Your task to perform on an android device: Open privacy settings Image 0: 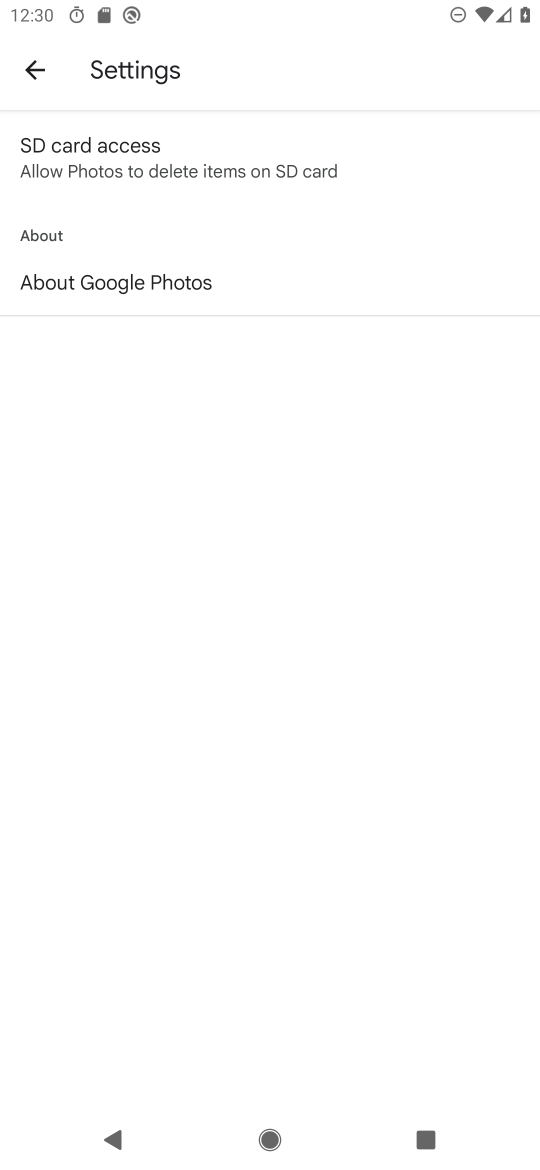
Step 0: press home button
Your task to perform on an android device: Open privacy settings Image 1: 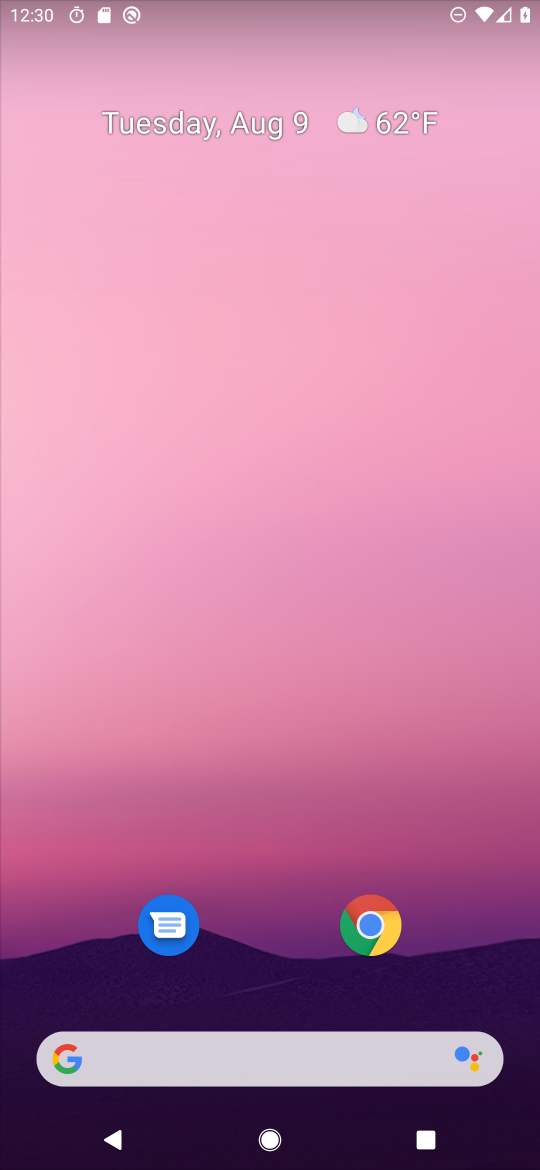
Step 1: drag from (263, 834) to (284, 319)
Your task to perform on an android device: Open privacy settings Image 2: 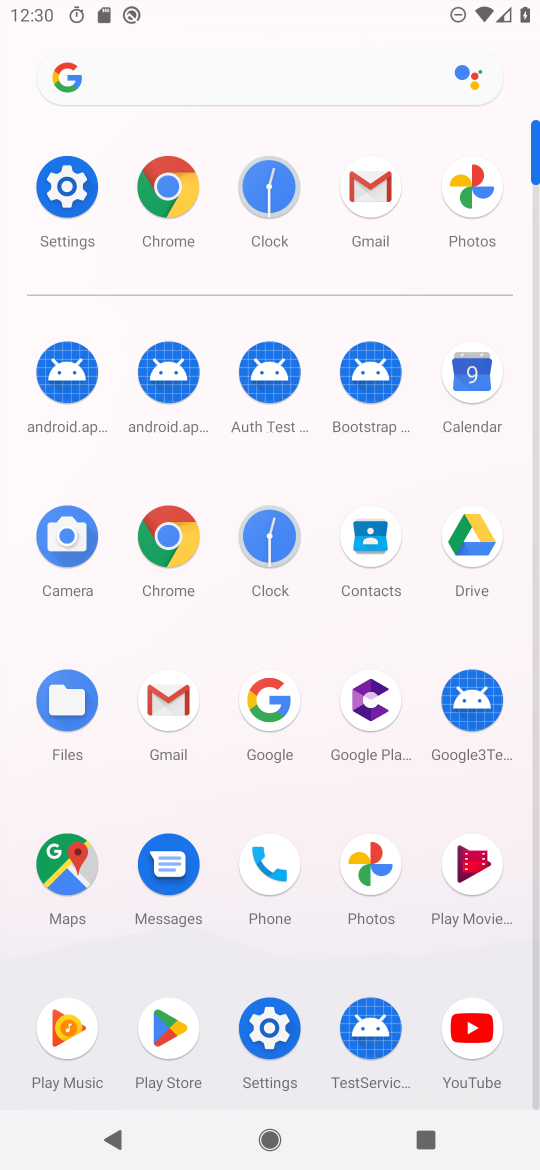
Step 2: click (284, 1037)
Your task to perform on an android device: Open privacy settings Image 3: 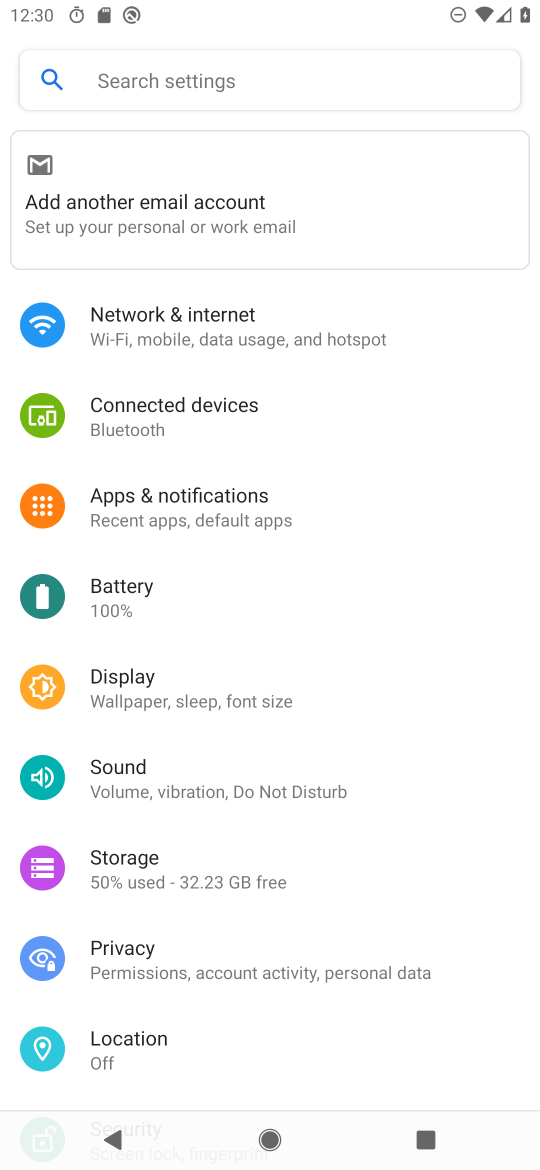
Step 3: click (218, 958)
Your task to perform on an android device: Open privacy settings Image 4: 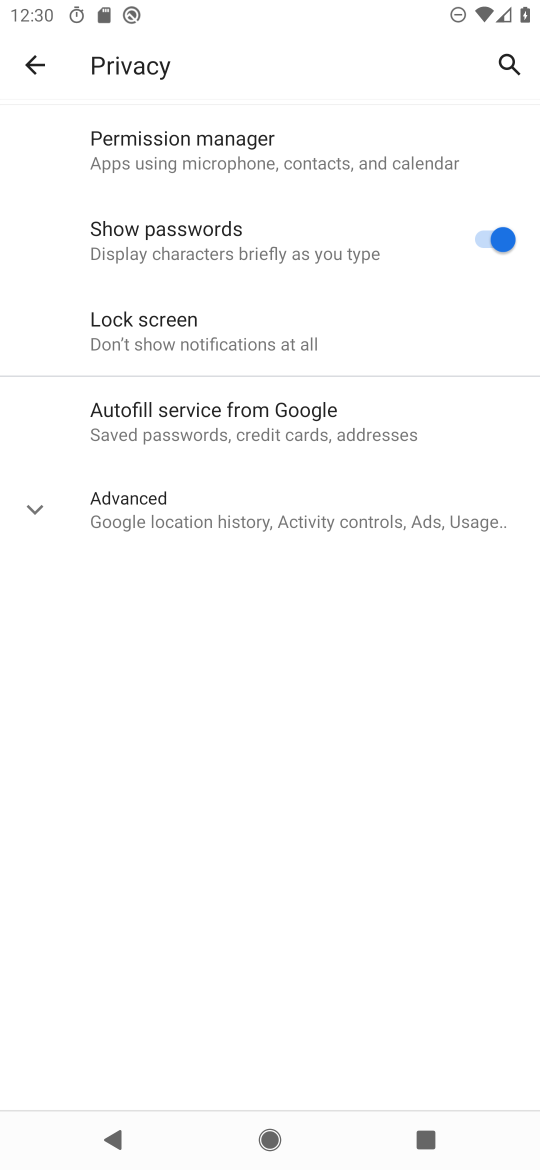
Step 4: task complete